Your task to perform on an android device: Search for Italian restaurants on Maps Image 0: 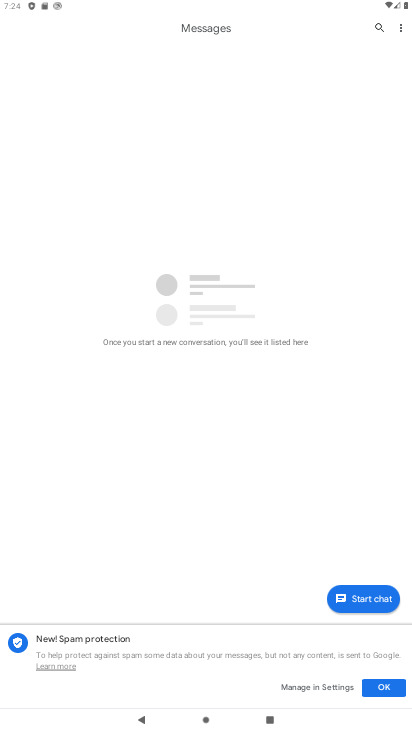
Step 0: press home button
Your task to perform on an android device: Search for Italian restaurants on Maps Image 1: 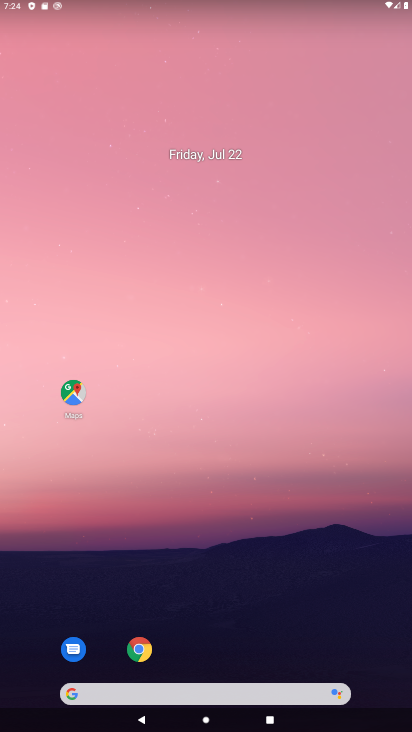
Step 1: click (194, 694)
Your task to perform on an android device: Search for Italian restaurants on Maps Image 2: 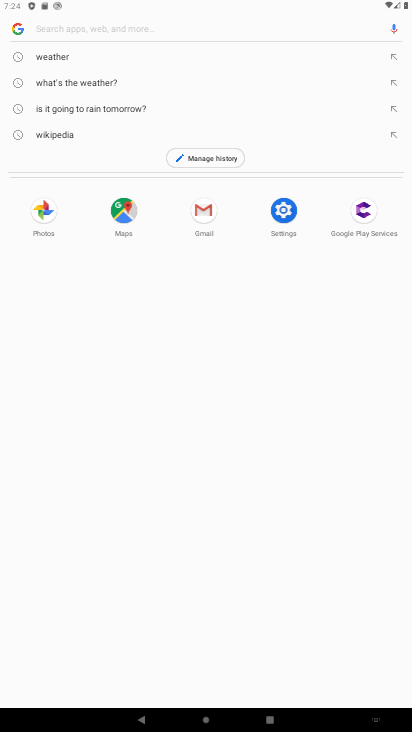
Step 2: type " Italian restaurants"
Your task to perform on an android device: Search for Italian restaurants on Maps Image 3: 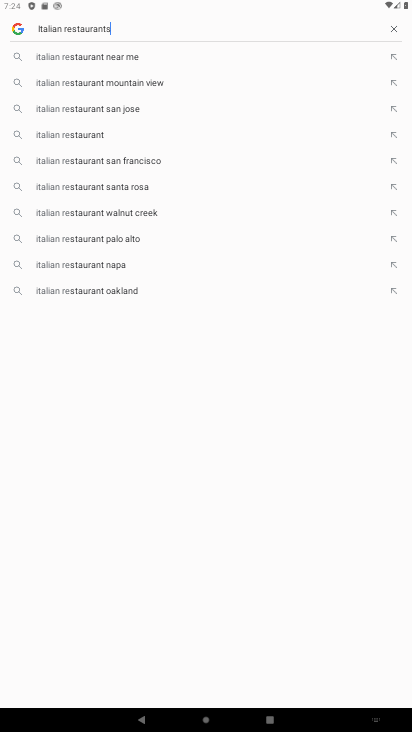
Step 3: press enter
Your task to perform on an android device: Search for Italian restaurants on Maps Image 4: 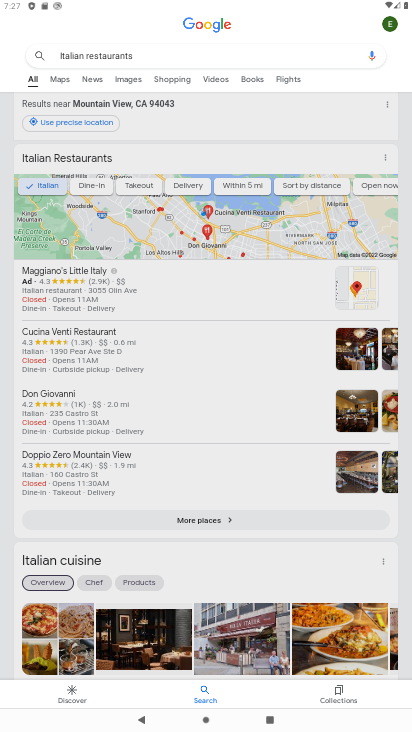
Step 4: task complete